Your task to perform on an android device: Add "macbook pro" to the cart on newegg.com Image 0: 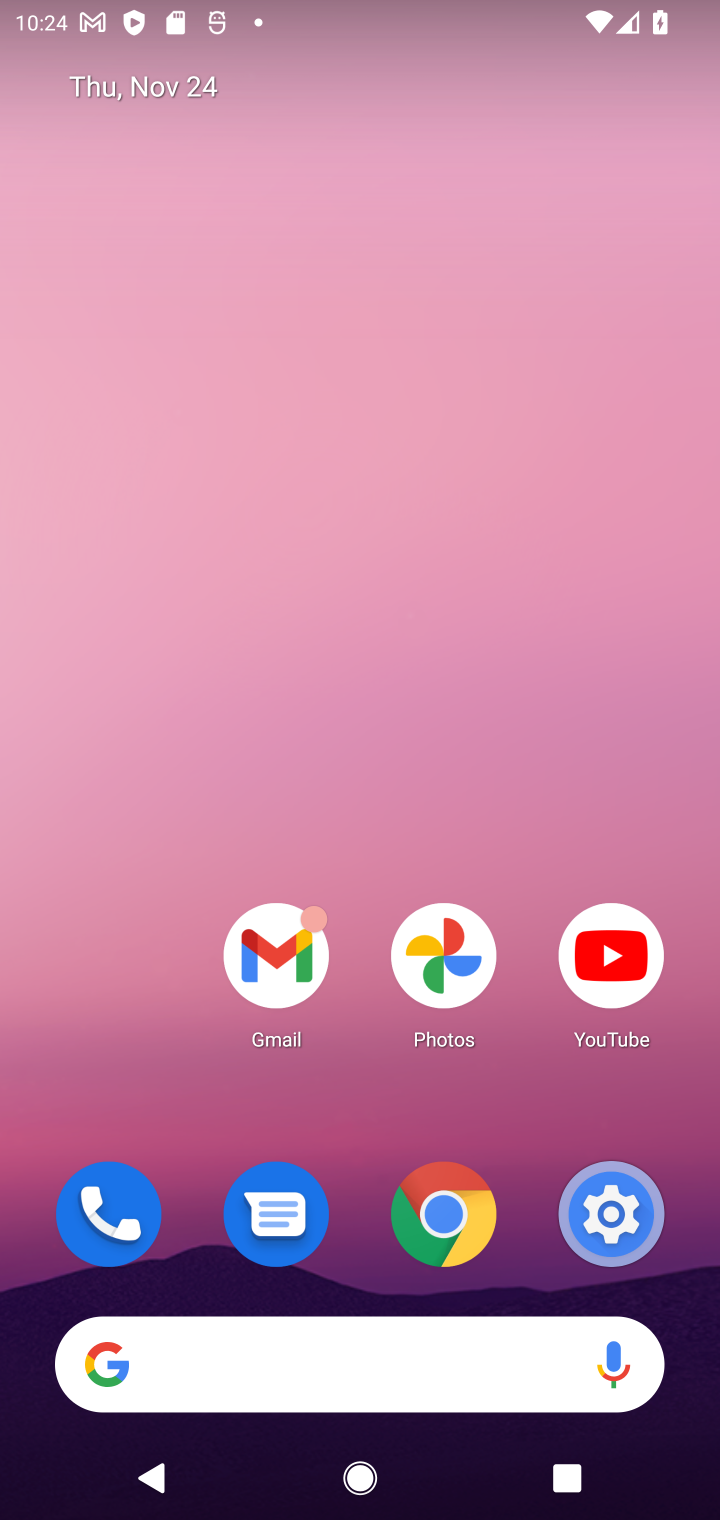
Step 0: click (368, 1403)
Your task to perform on an android device: Add "macbook pro" to the cart on newegg.com Image 1: 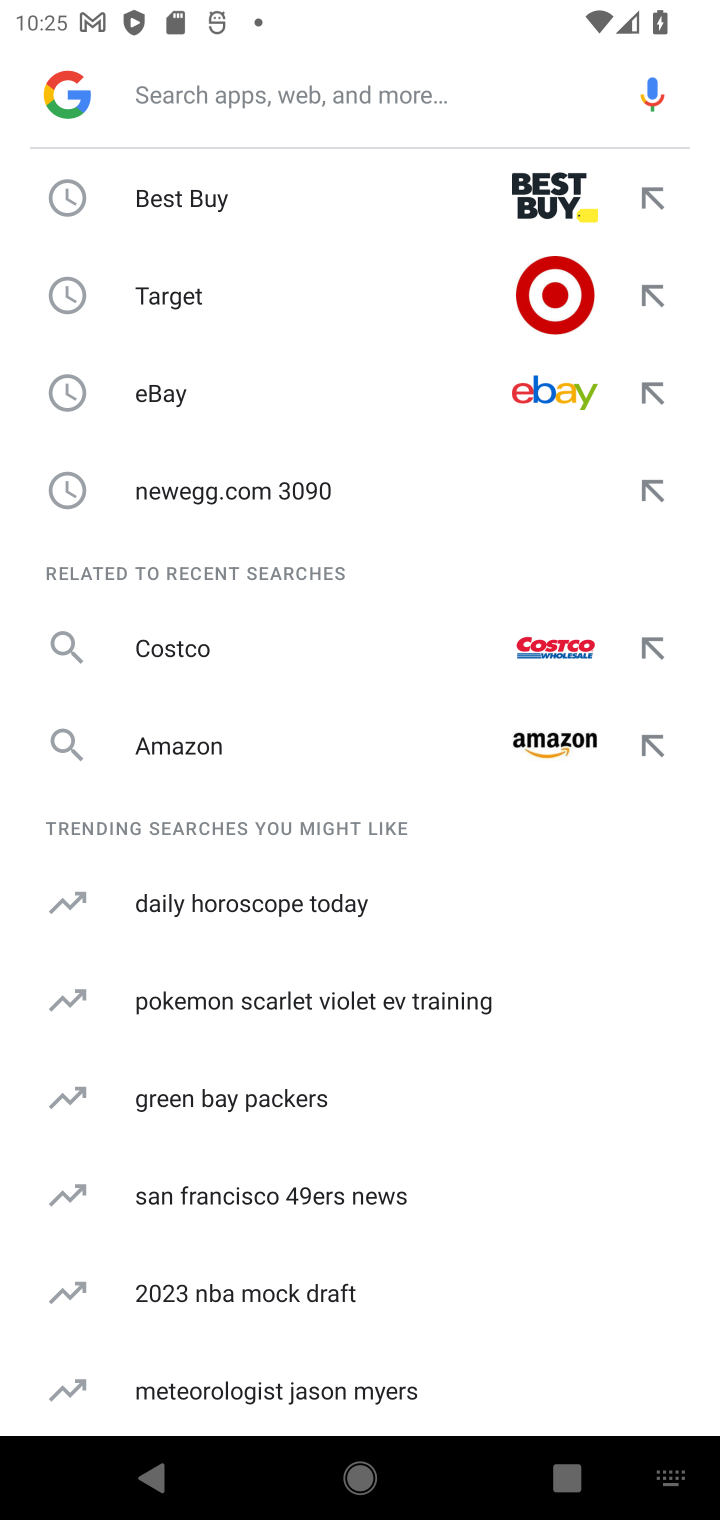
Step 1: type "macbook pro"
Your task to perform on an android device: Add "macbook pro" to the cart on newegg.com Image 2: 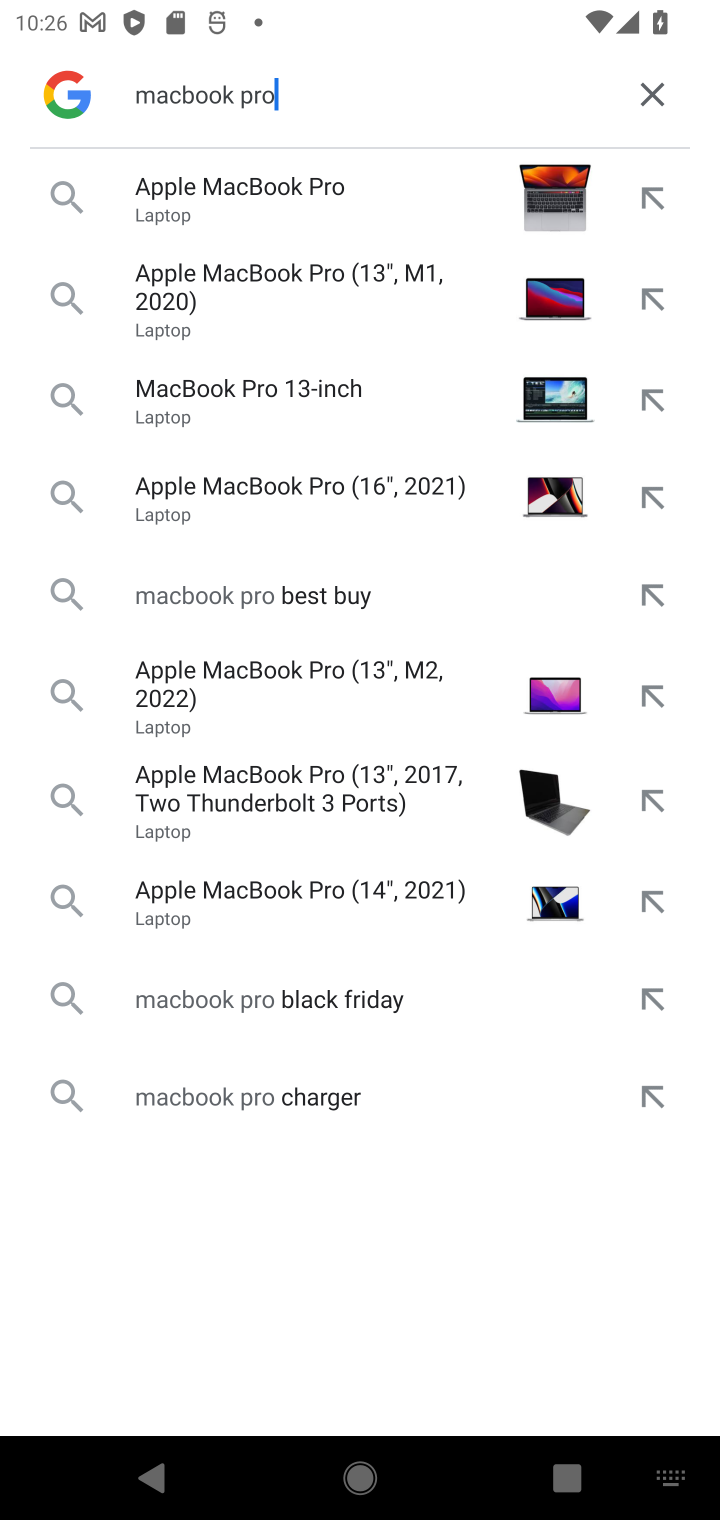
Step 2: click (260, 220)
Your task to perform on an android device: Add "macbook pro" to the cart on newegg.com Image 3: 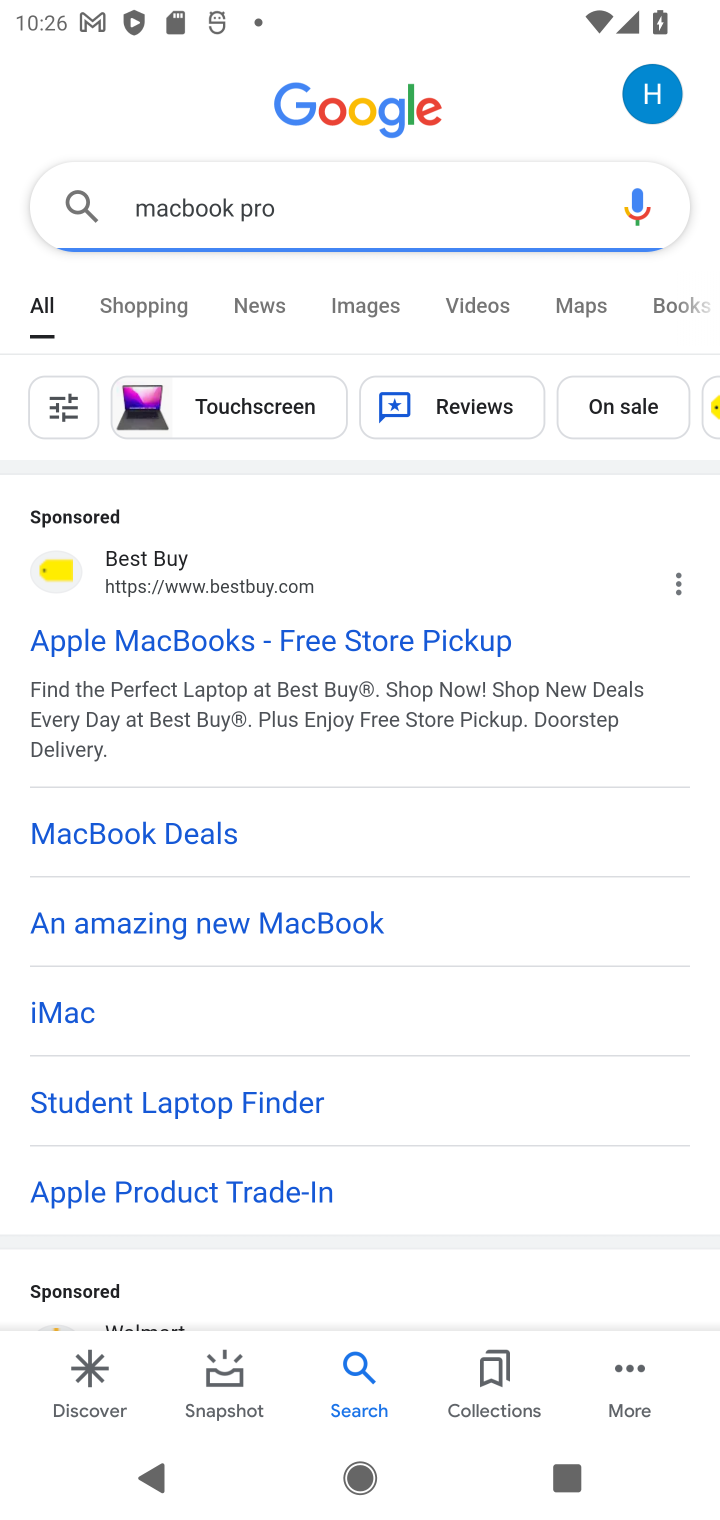
Step 3: task complete